Your task to perform on an android device: create a new album in the google photos Image 0: 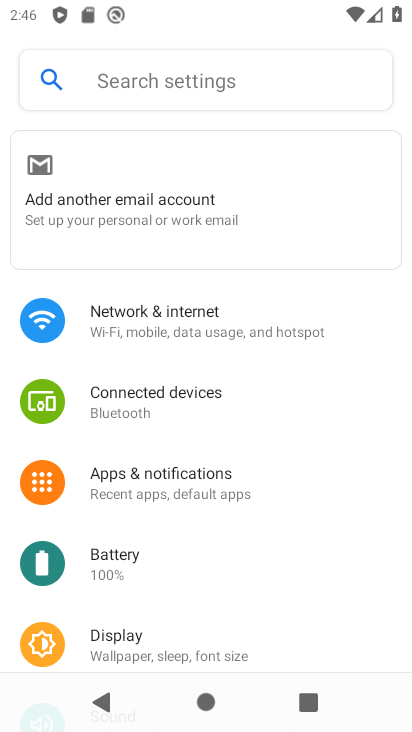
Step 0: press home button
Your task to perform on an android device: create a new album in the google photos Image 1: 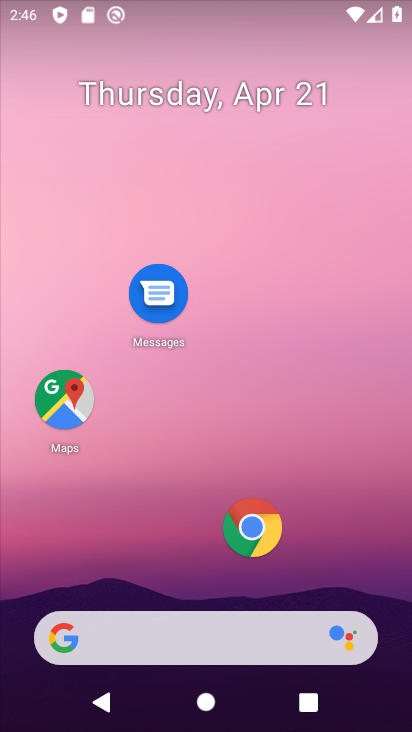
Step 1: drag from (216, 594) to (289, 283)
Your task to perform on an android device: create a new album in the google photos Image 2: 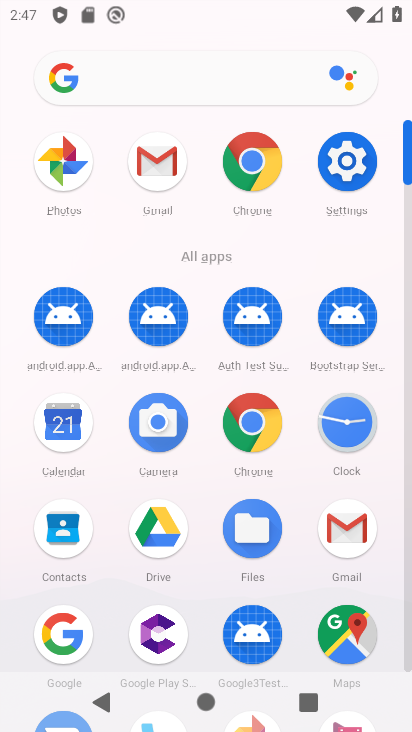
Step 2: drag from (263, 638) to (306, 386)
Your task to perform on an android device: create a new album in the google photos Image 3: 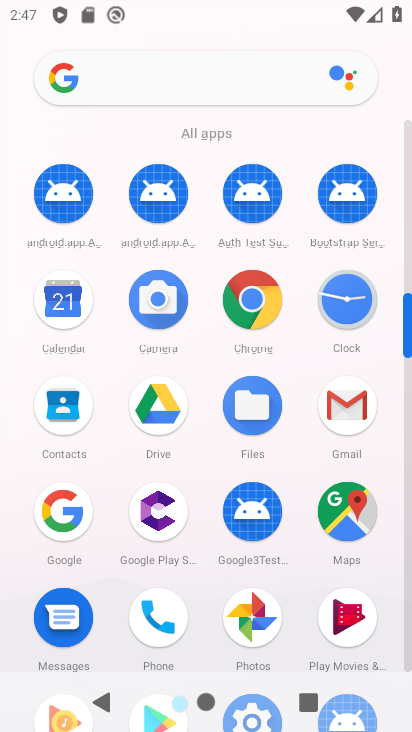
Step 3: click (265, 618)
Your task to perform on an android device: create a new album in the google photos Image 4: 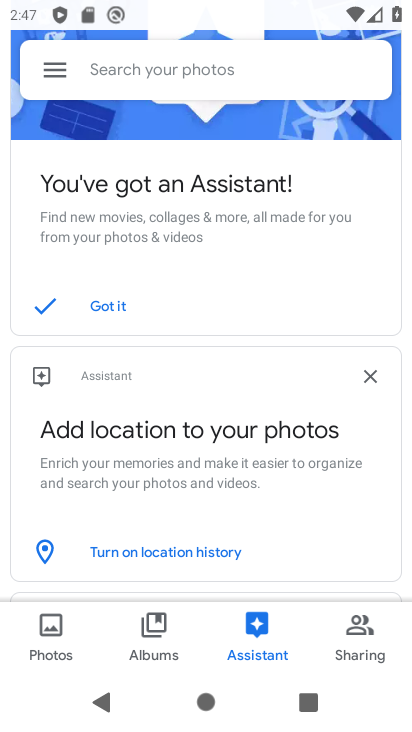
Step 4: click (159, 636)
Your task to perform on an android device: create a new album in the google photos Image 5: 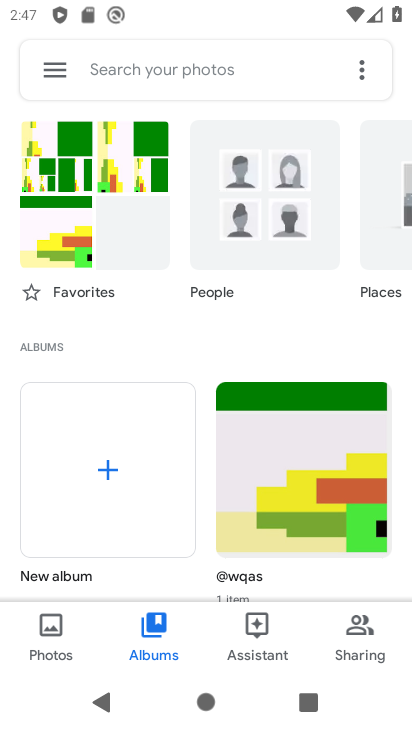
Step 5: click (111, 478)
Your task to perform on an android device: create a new album in the google photos Image 6: 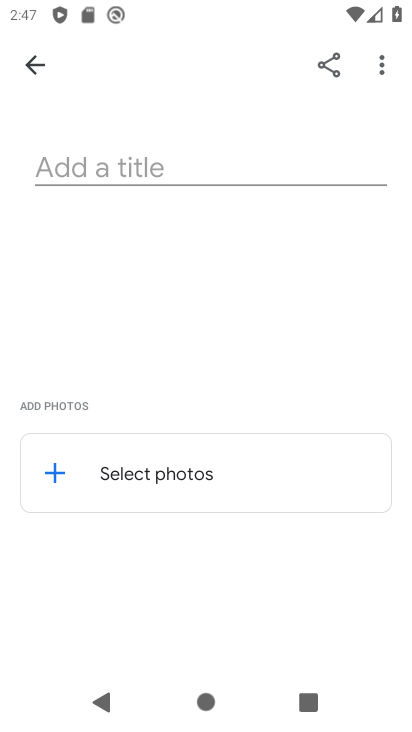
Step 6: click (59, 173)
Your task to perform on an android device: create a new album in the google photos Image 7: 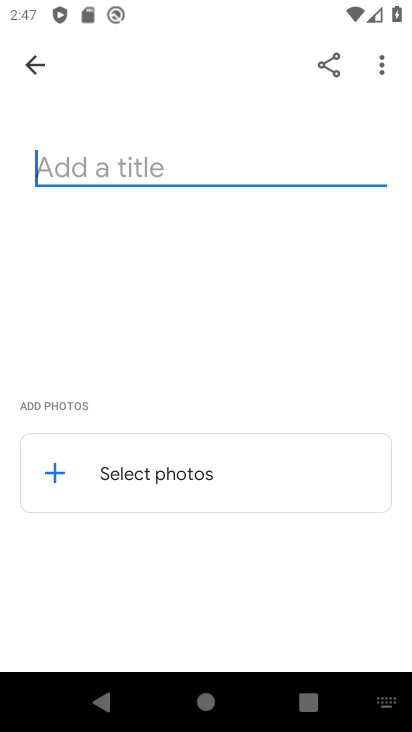
Step 7: type "al 07"
Your task to perform on an android device: create a new album in the google photos Image 8: 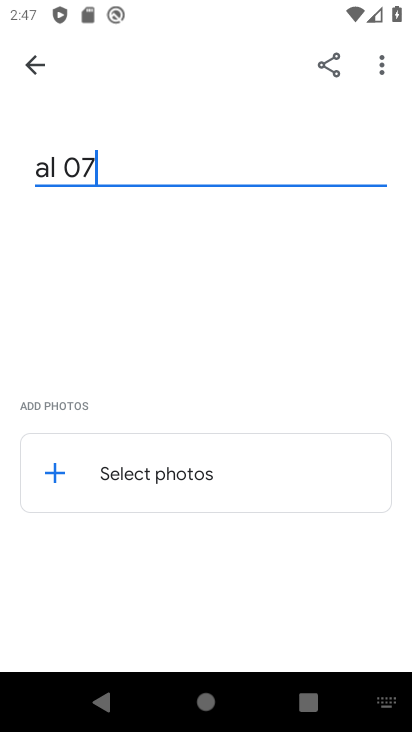
Step 8: click (156, 483)
Your task to perform on an android device: create a new album in the google photos Image 9: 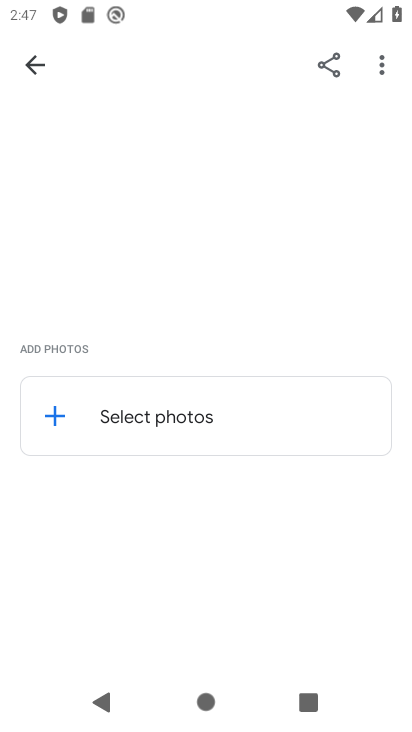
Step 9: click (169, 420)
Your task to perform on an android device: create a new album in the google photos Image 10: 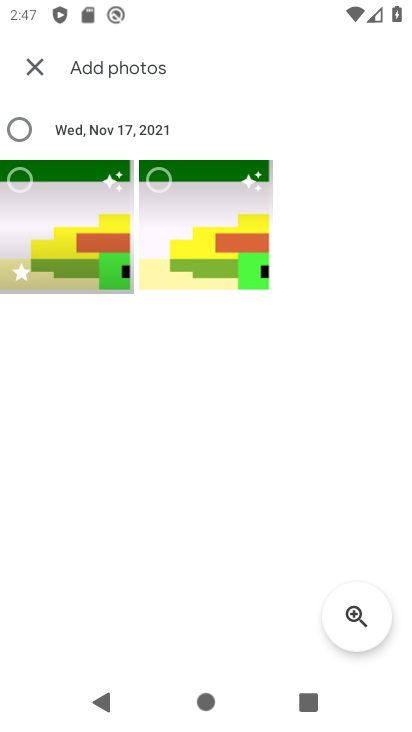
Step 10: click (26, 119)
Your task to perform on an android device: create a new album in the google photos Image 11: 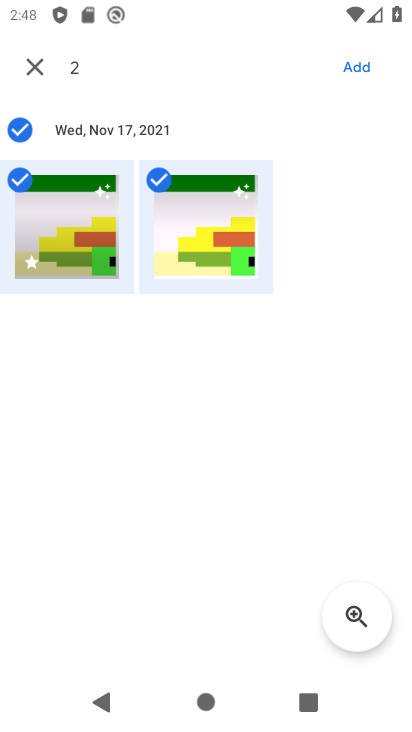
Step 11: click (354, 65)
Your task to perform on an android device: create a new album in the google photos Image 12: 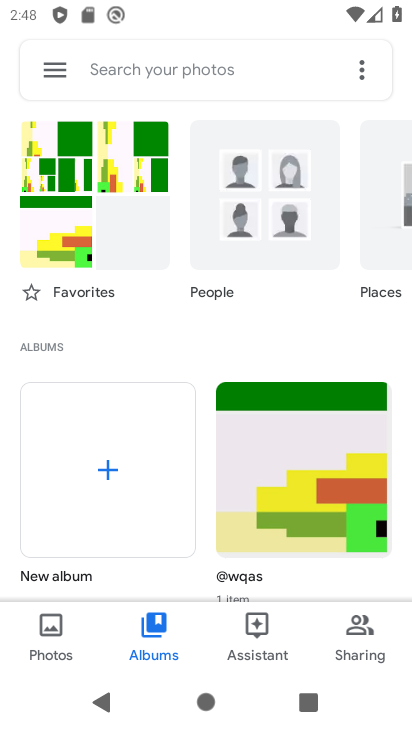
Step 12: task complete